Your task to perform on an android device: Go to accessibility settings Image 0: 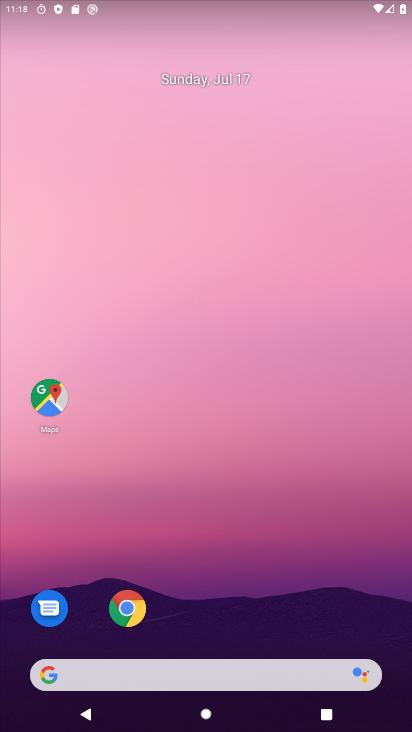
Step 0: drag from (260, 618) to (259, 0)
Your task to perform on an android device: Go to accessibility settings Image 1: 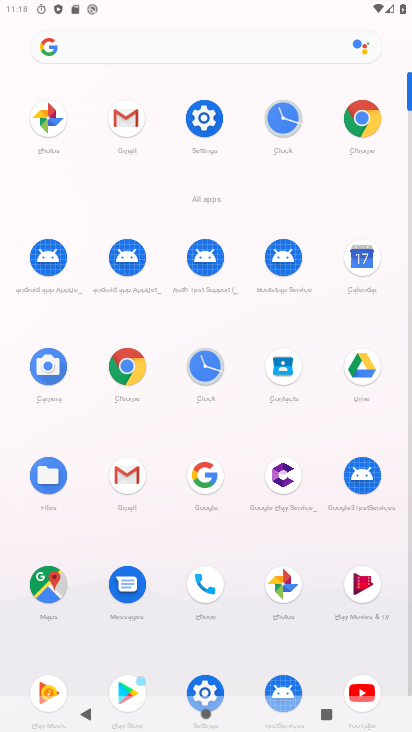
Step 1: click (203, 678)
Your task to perform on an android device: Go to accessibility settings Image 2: 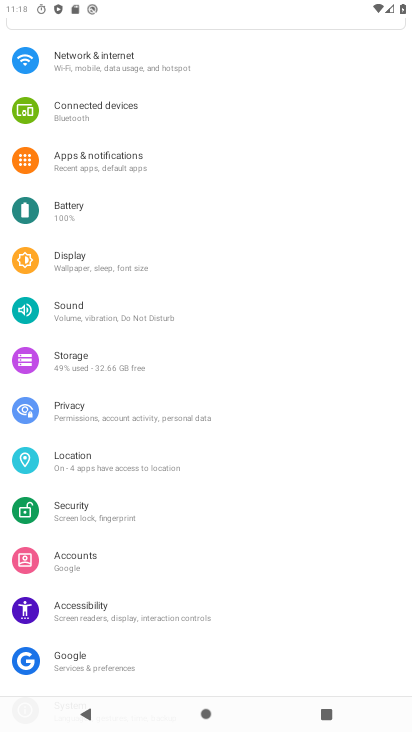
Step 2: click (98, 610)
Your task to perform on an android device: Go to accessibility settings Image 3: 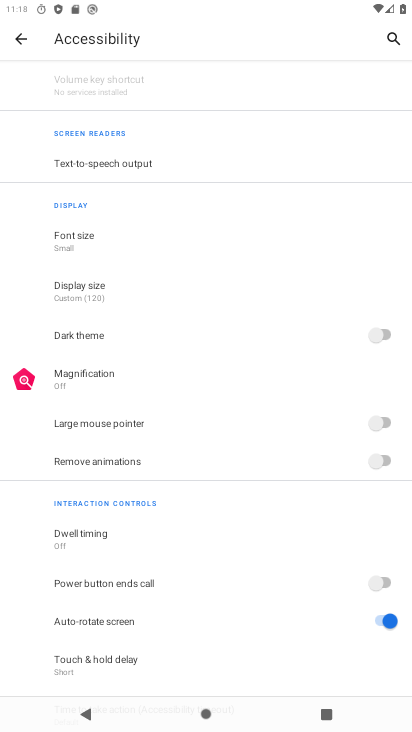
Step 3: task complete